Your task to perform on an android device: Go to accessibility settings Image 0: 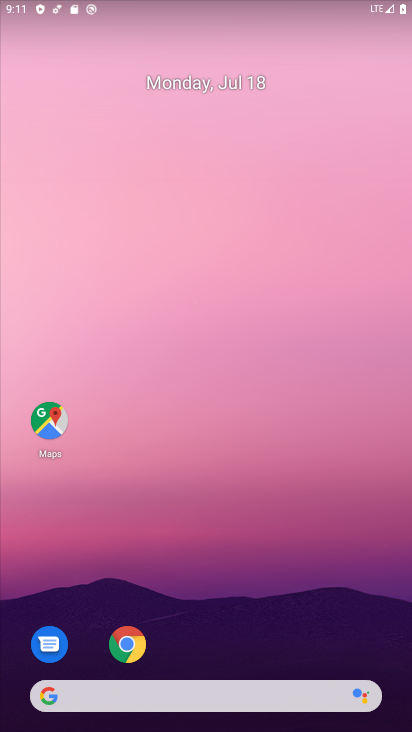
Step 0: drag from (329, 617) to (349, 155)
Your task to perform on an android device: Go to accessibility settings Image 1: 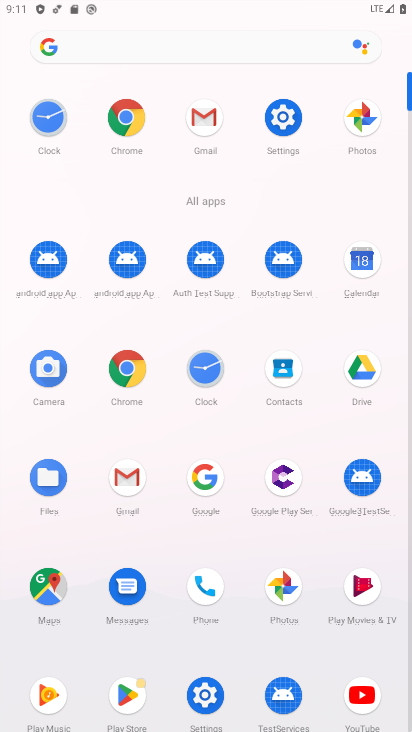
Step 1: click (287, 123)
Your task to perform on an android device: Go to accessibility settings Image 2: 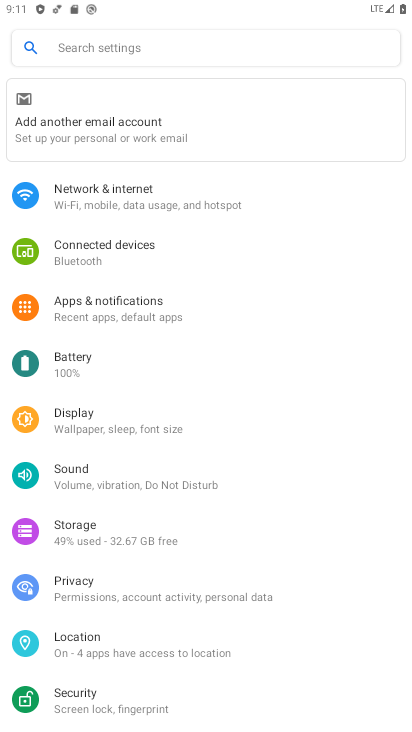
Step 2: drag from (333, 434) to (330, 303)
Your task to perform on an android device: Go to accessibility settings Image 3: 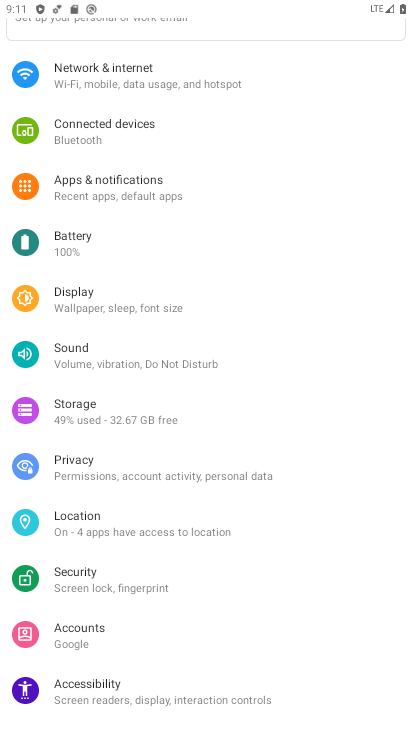
Step 3: drag from (333, 466) to (333, 388)
Your task to perform on an android device: Go to accessibility settings Image 4: 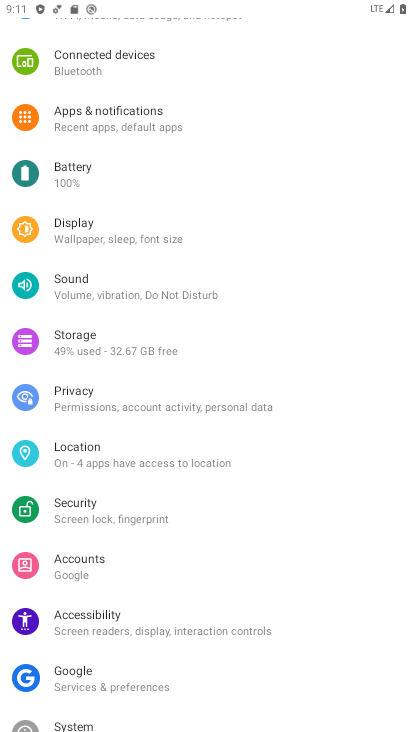
Step 4: drag from (319, 502) to (317, 433)
Your task to perform on an android device: Go to accessibility settings Image 5: 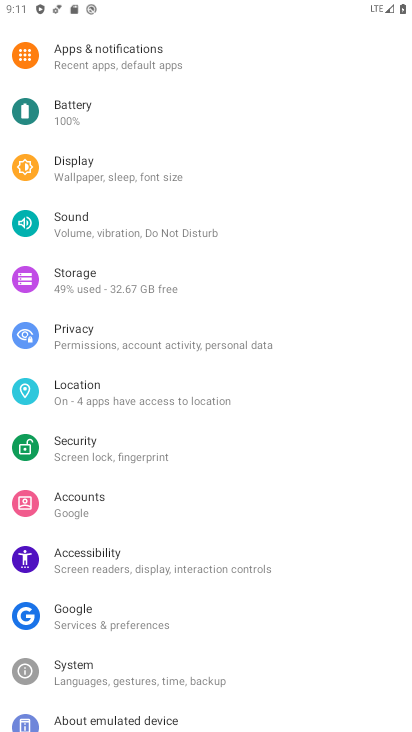
Step 5: drag from (324, 560) to (324, 431)
Your task to perform on an android device: Go to accessibility settings Image 6: 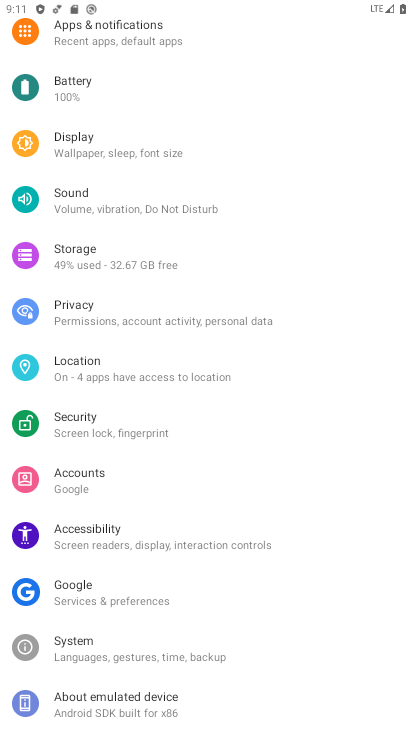
Step 6: click (249, 536)
Your task to perform on an android device: Go to accessibility settings Image 7: 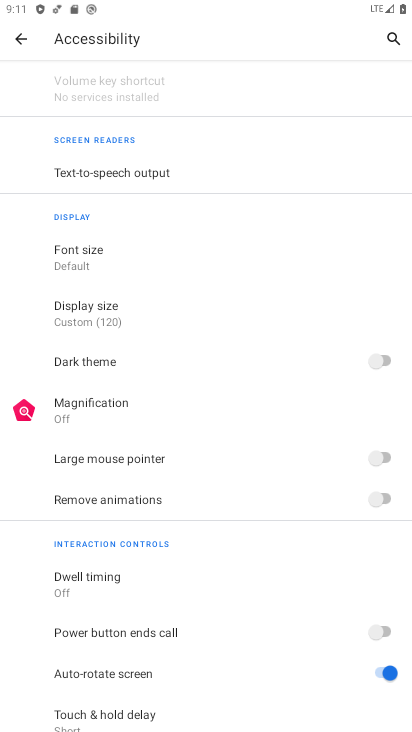
Step 7: task complete